Your task to perform on an android device: open a bookmark in the chrome app Image 0: 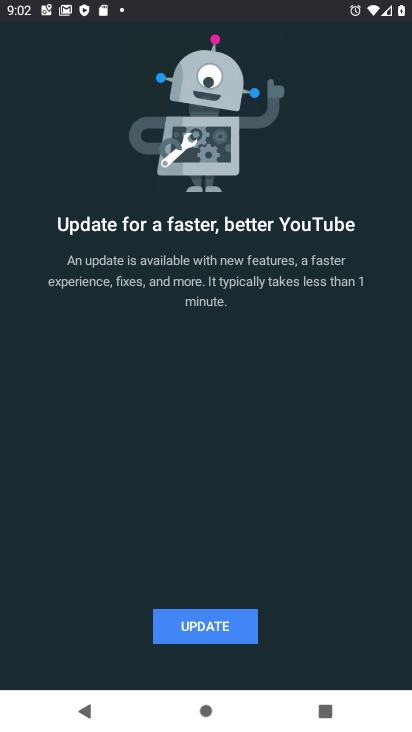
Step 0: press home button
Your task to perform on an android device: open a bookmark in the chrome app Image 1: 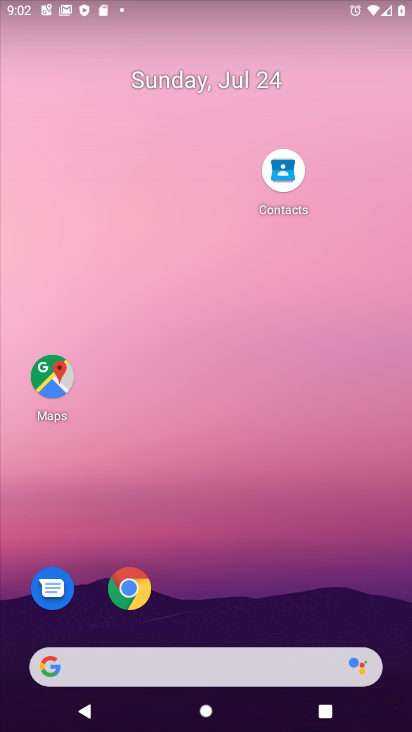
Step 1: click (126, 587)
Your task to perform on an android device: open a bookmark in the chrome app Image 2: 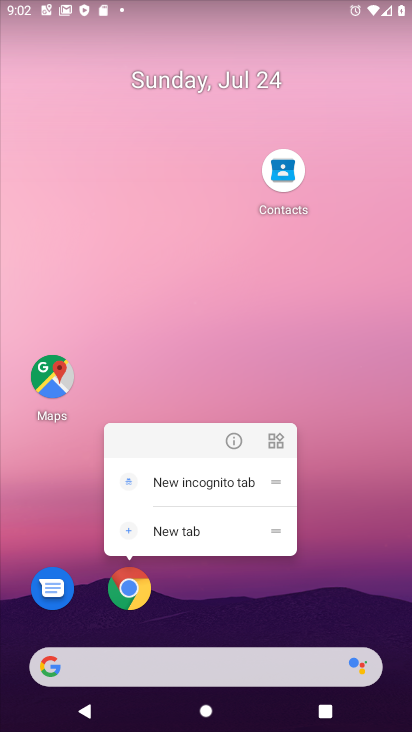
Step 2: click (129, 583)
Your task to perform on an android device: open a bookmark in the chrome app Image 3: 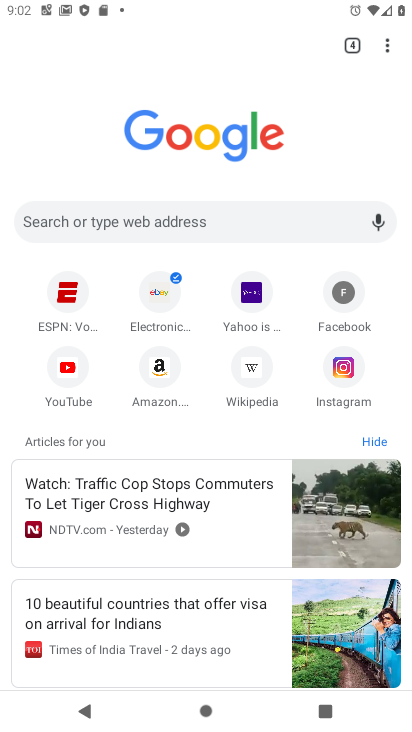
Step 3: click (386, 43)
Your task to perform on an android device: open a bookmark in the chrome app Image 4: 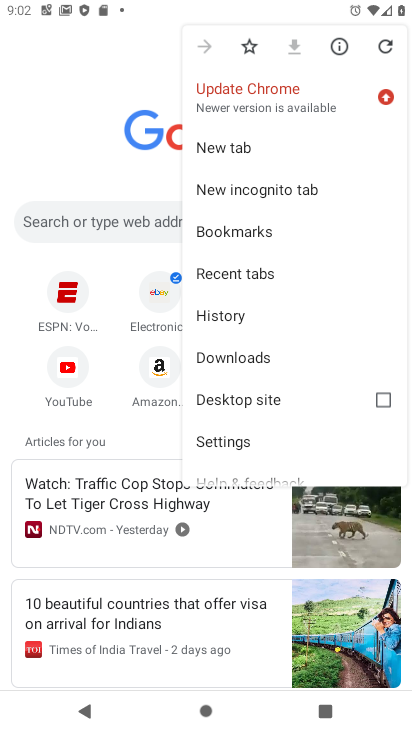
Step 4: click (270, 230)
Your task to perform on an android device: open a bookmark in the chrome app Image 5: 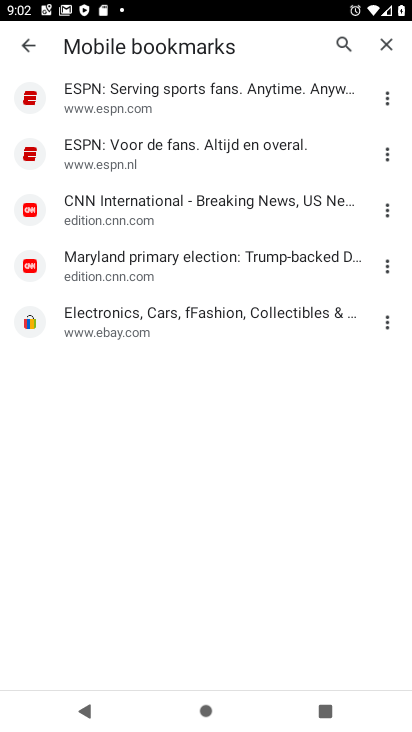
Step 5: click (169, 210)
Your task to perform on an android device: open a bookmark in the chrome app Image 6: 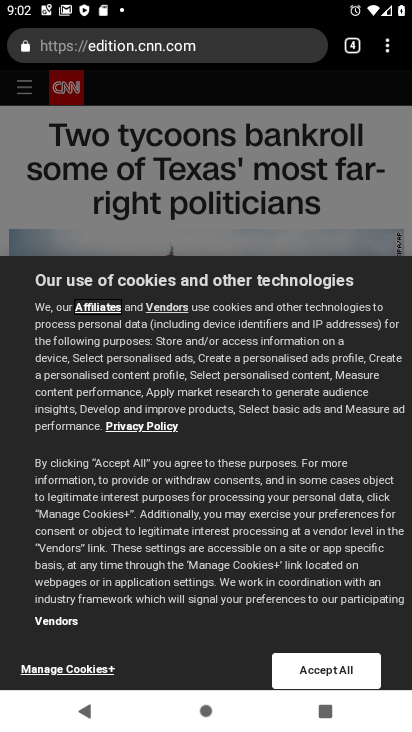
Step 6: drag from (217, 641) to (210, 183)
Your task to perform on an android device: open a bookmark in the chrome app Image 7: 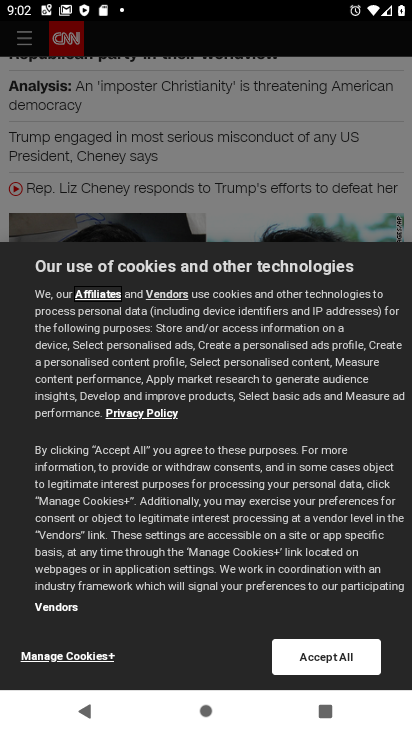
Step 7: click (332, 651)
Your task to perform on an android device: open a bookmark in the chrome app Image 8: 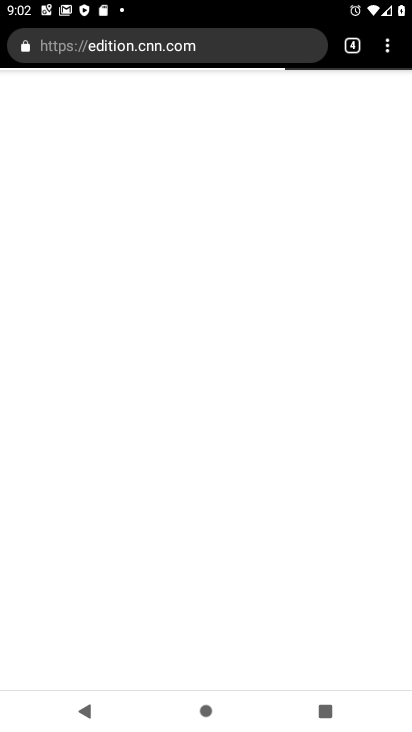
Step 8: task complete